Your task to perform on an android device: toggle show notifications on the lock screen Image 0: 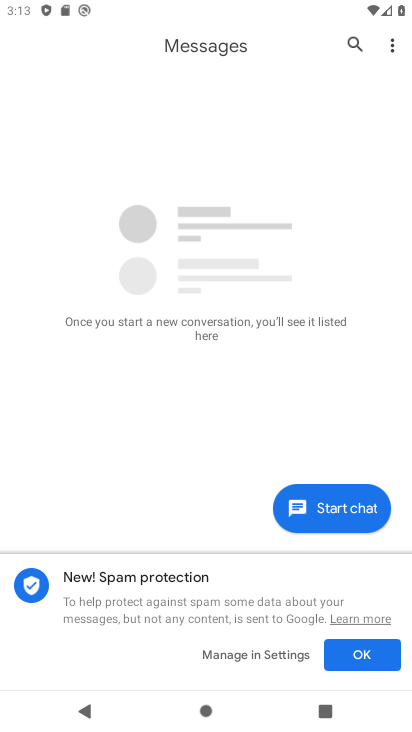
Step 0: press home button
Your task to perform on an android device: toggle show notifications on the lock screen Image 1: 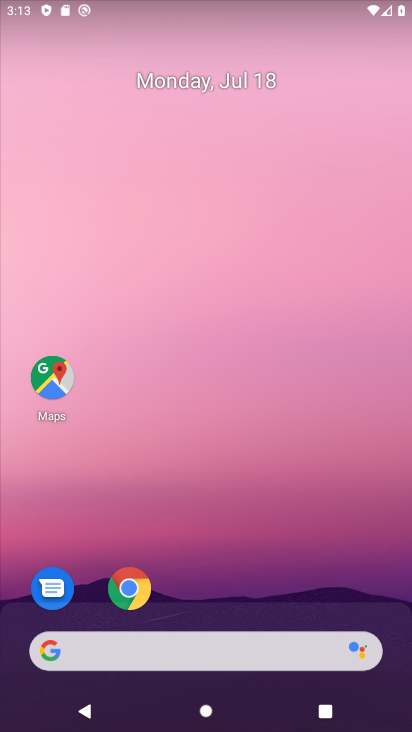
Step 1: drag from (279, 626) to (264, 152)
Your task to perform on an android device: toggle show notifications on the lock screen Image 2: 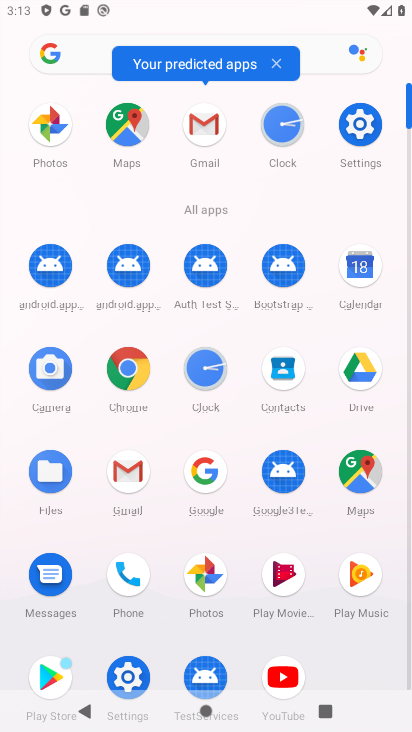
Step 2: click (359, 125)
Your task to perform on an android device: toggle show notifications on the lock screen Image 3: 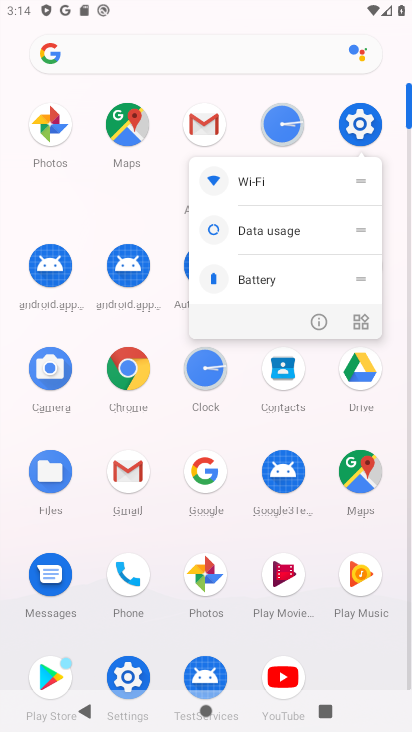
Step 3: click (357, 125)
Your task to perform on an android device: toggle show notifications on the lock screen Image 4: 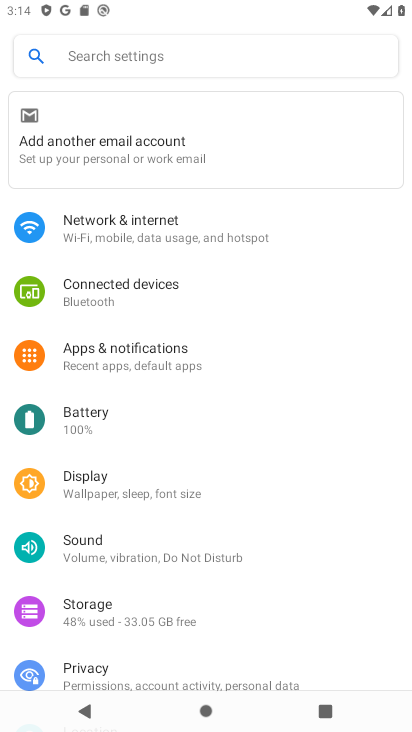
Step 4: click (169, 348)
Your task to perform on an android device: toggle show notifications on the lock screen Image 5: 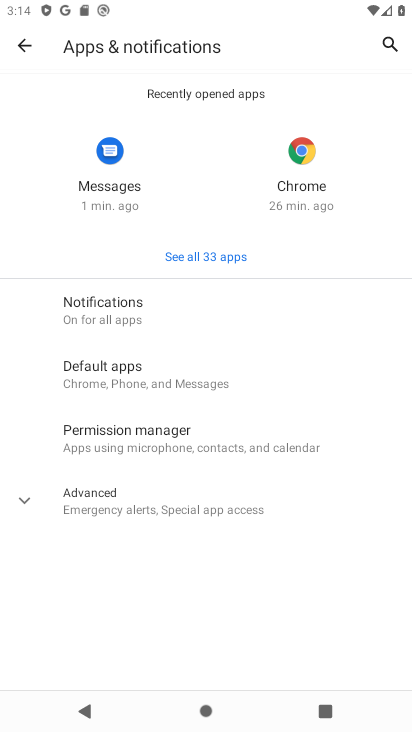
Step 5: click (240, 318)
Your task to perform on an android device: toggle show notifications on the lock screen Image 6: 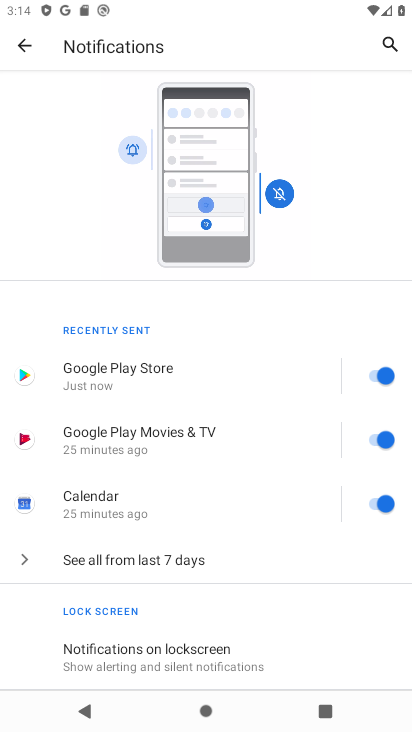
Step 6: drag from (245, 614) to (231, 185)
Your task to perform on an android device: toggle show notifications on the lock screen Image 7: 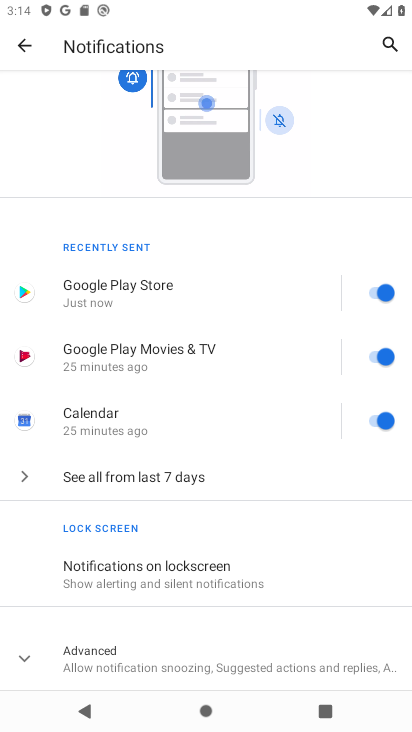
Step 7: click (256, 581)
Your task to perform on an android device: toggle show notifications on the lock screen Image 8: 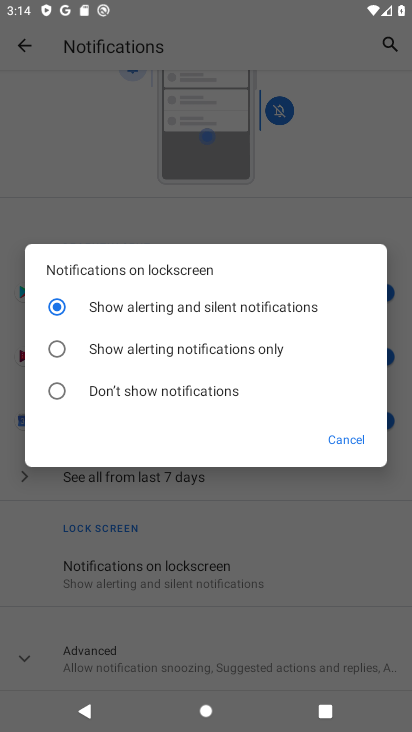
Step 8: click (265, 352)
Your task to perform on an android device: toggle show notifications on the lock screen Image 9: 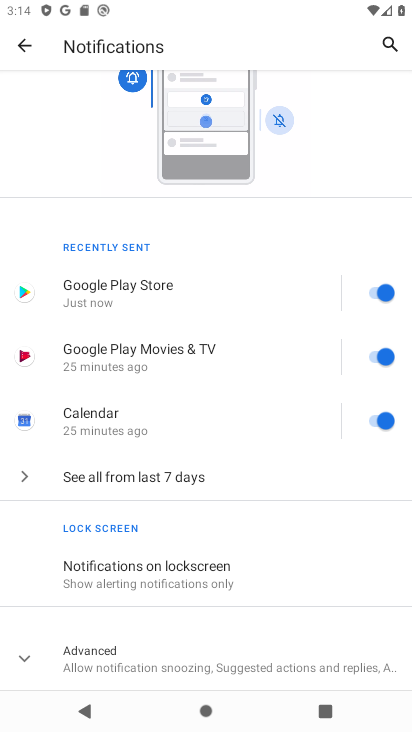
Step 9: task complete